Your task to perform on an android device: open wifi settings Image 0: 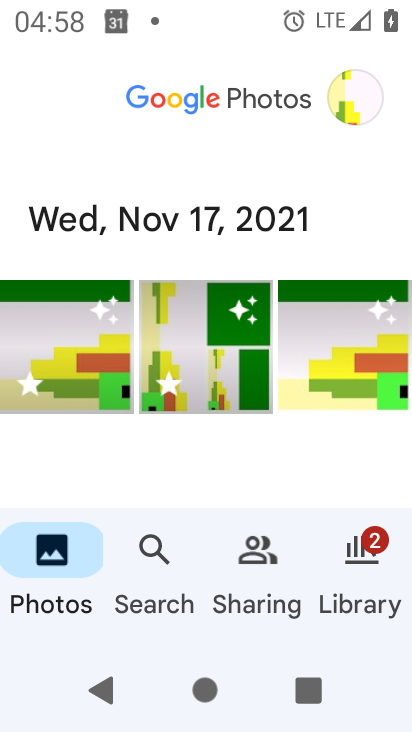
Step 0: press home button
Your task to perform on an android device: open wifi settings Image 1: 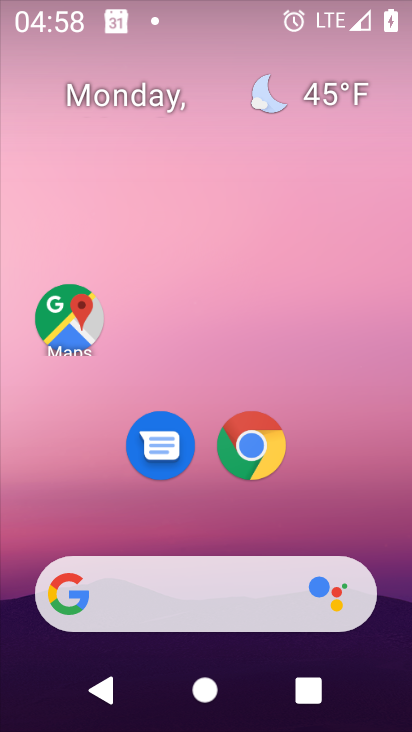
Step 1: drag from (139, 509) to (214, 37)
Your task to perform on an android device: open wifi settings Image 2: 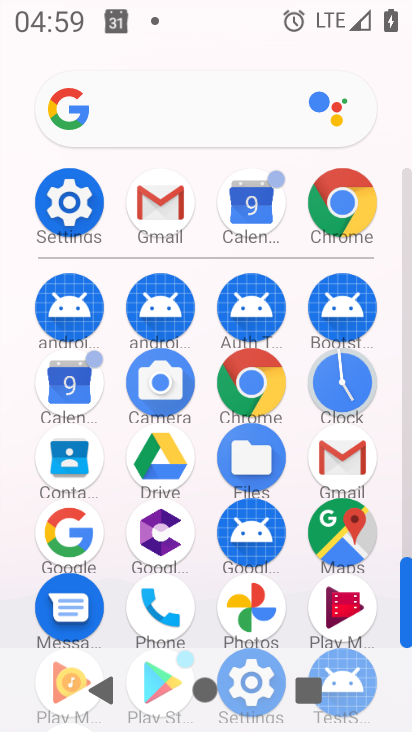
Step 2: click (61, 177)
Your task to perform on an android device: open wifi settings Image 3: 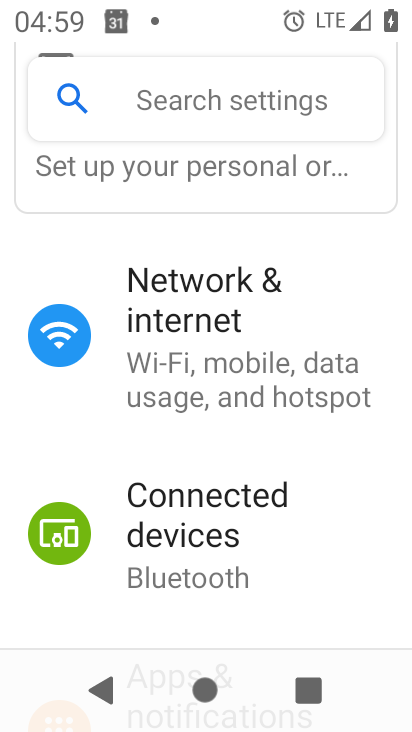
Step 3: click (221, 313)
Your task to perform on an android device: open wifi settings Image 4: 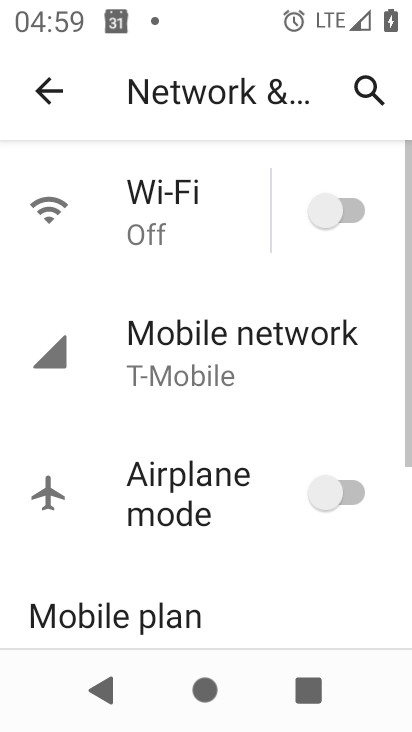
Step 4: click (119, 219)
Your task to perform on an android device: open wifi settings Image 5: 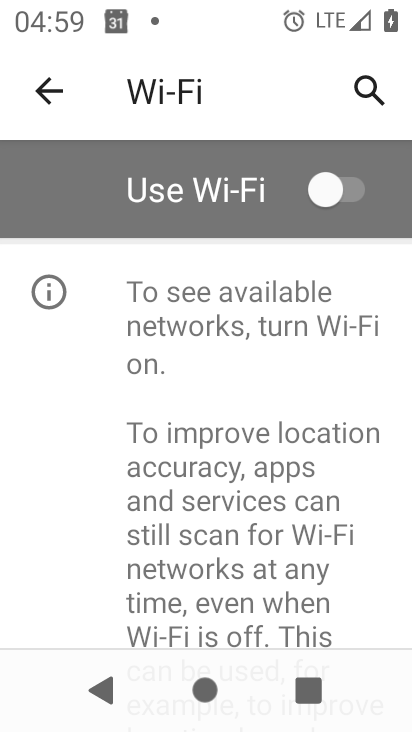
Step 5: task complete